Your task to perform on an android device: Empty the shopping cart on amazon.com. Add "sony triple a" to the cart on amazon.com, then select checkout. Image 0: 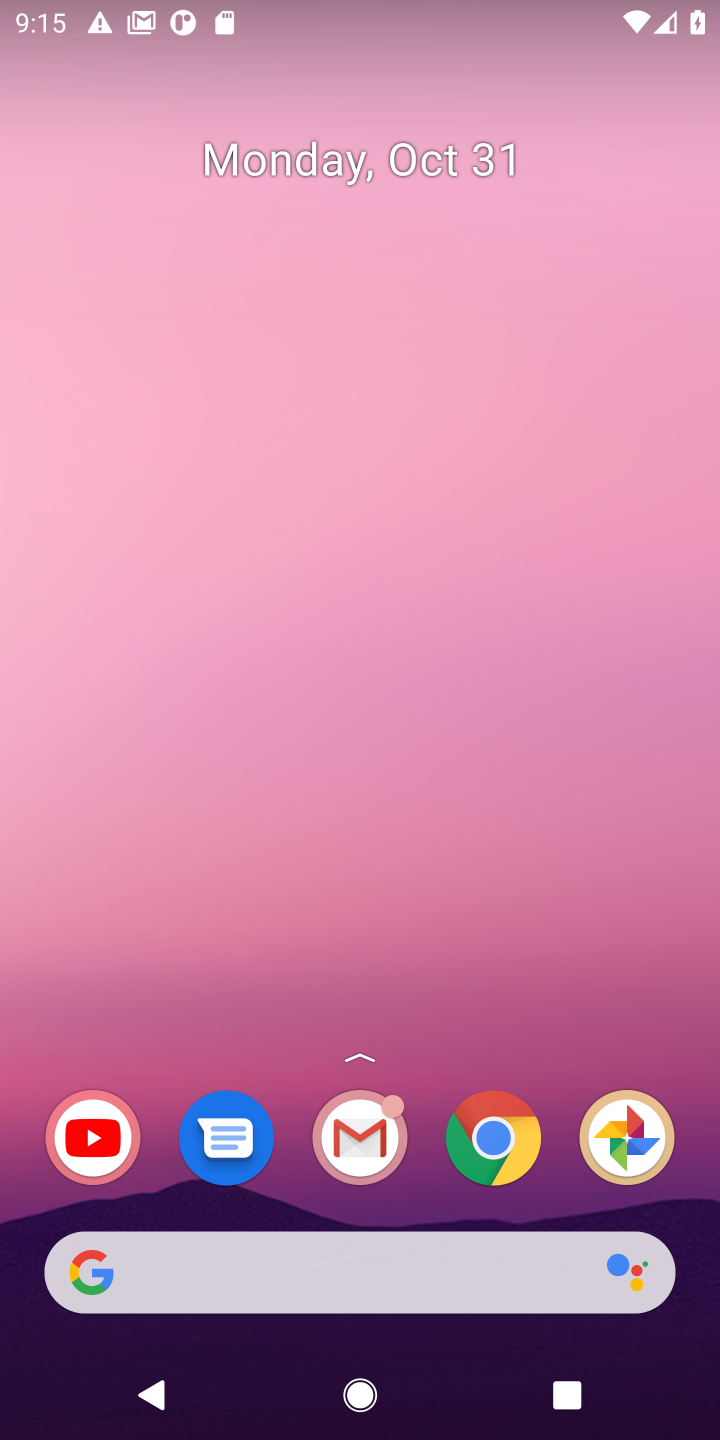
Step 0: drag from (456, 1340) to (365, 149)
Your task to perform on an android device: Empty the shopping cart on amazon.com. Add "sony triple a" to the cart on amazon.com, then select checkout. Image 1: 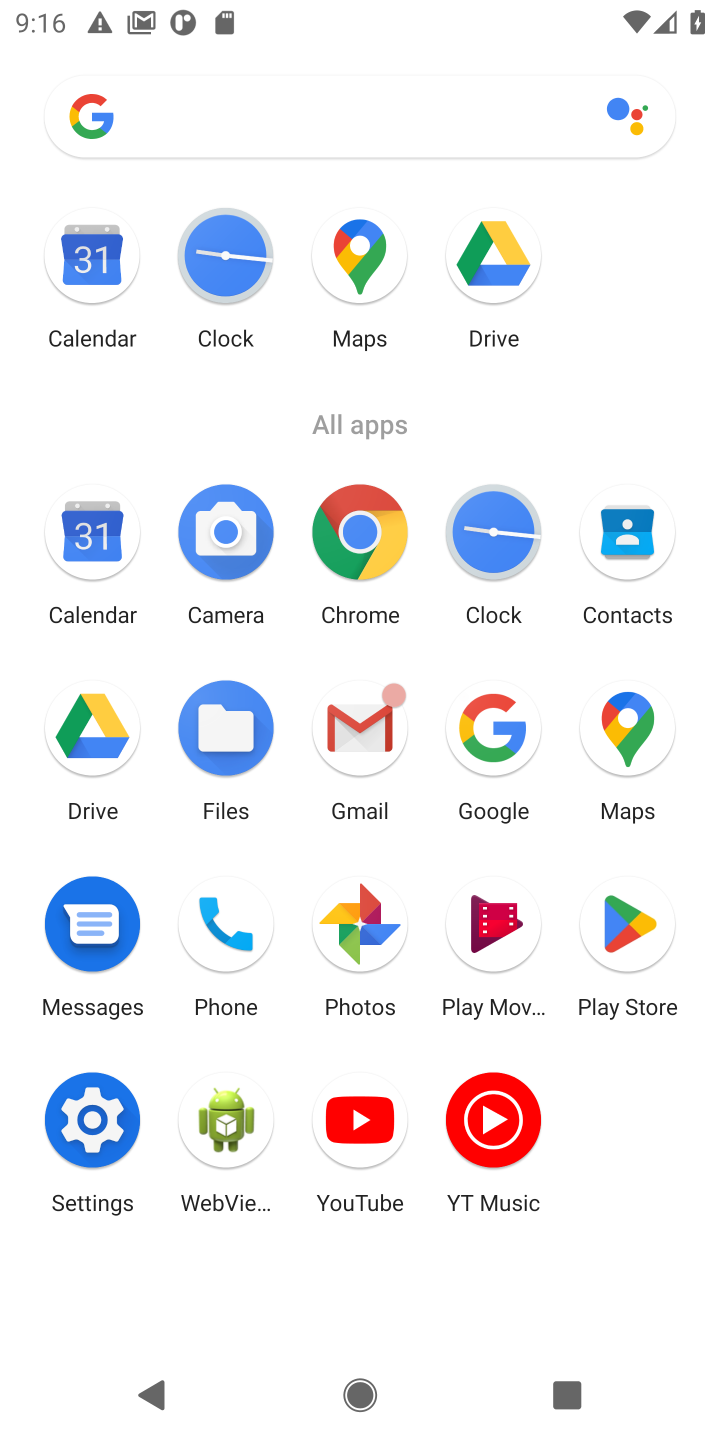
Step 1: click (366, 525)
Your task to perform on an android device: Empty the shopping cart on amazon.com. Add "sony triple a" to the cart on amazon.com, then select checkout. Image 2: 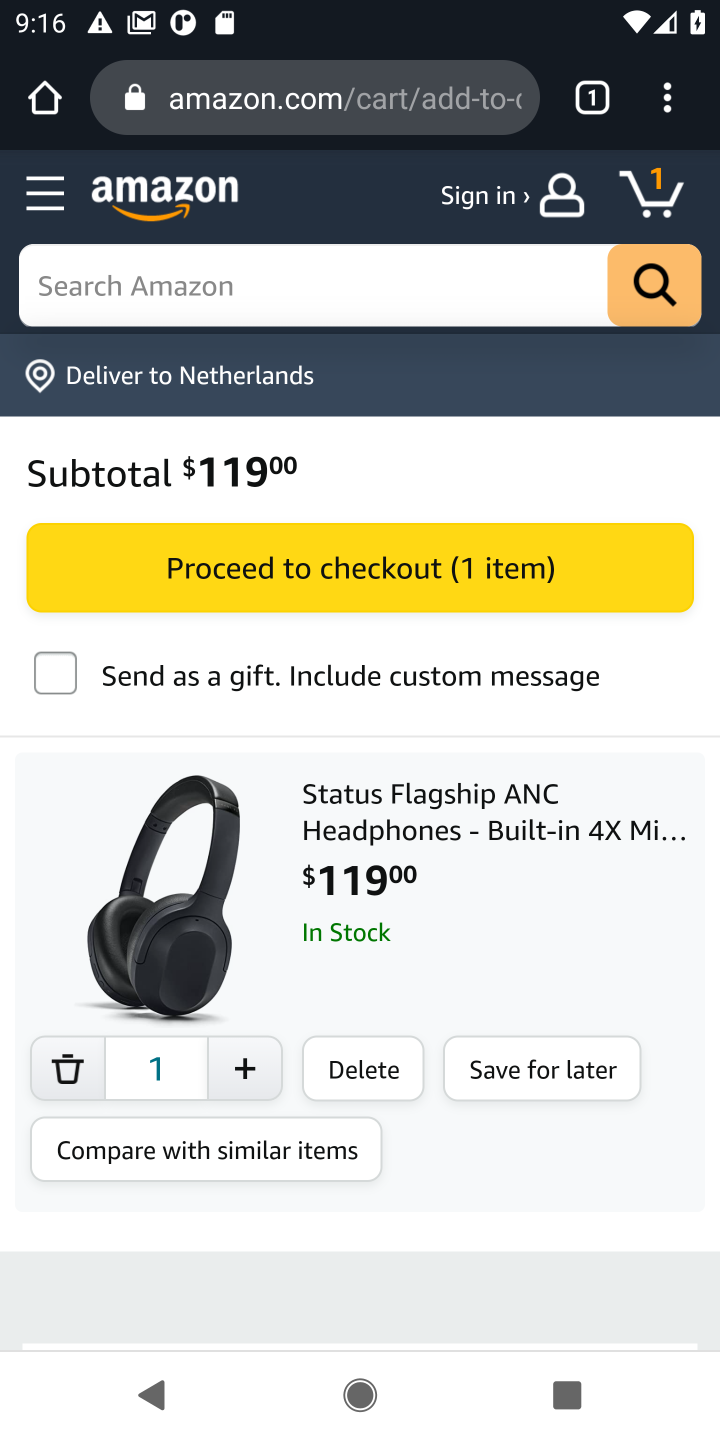
Step 2: click (137, 281)
Your task to perform on an android device: Empty the shopping cart on amazon.com. Add "sony triple a" to the cart on amazon.com, then select checkout. Image 3: 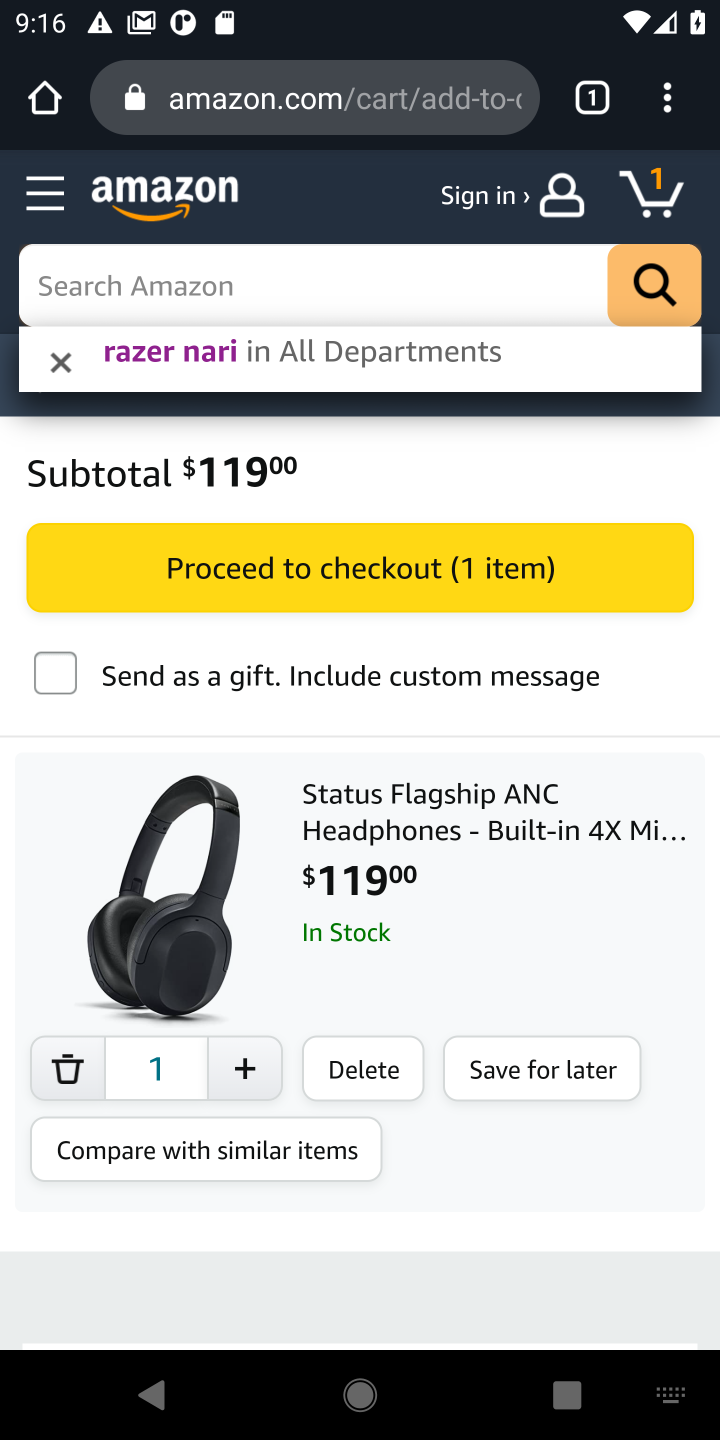
Step 3: click (642, 184)
Your task to perform on an android device: Empty the shopping cart on amazon.com. Add "sony triple a" to the cart on amazon.com, then select checkout. Image 4: 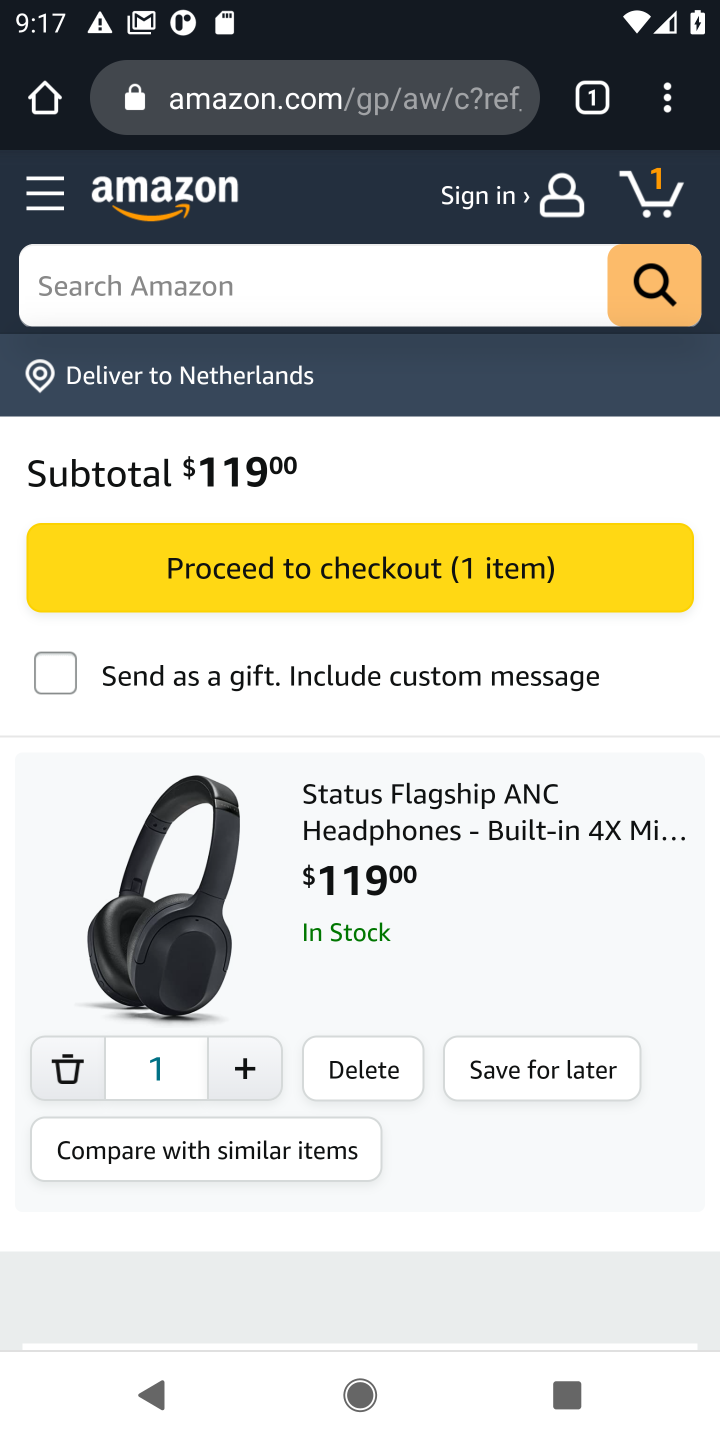
Step 4: click (315, 275)
Your task to perform on an android device: Empty the shopping cart on amazon.com. Add "sony triple a" to the cart on amazon.com, then select checkout. Image 5: 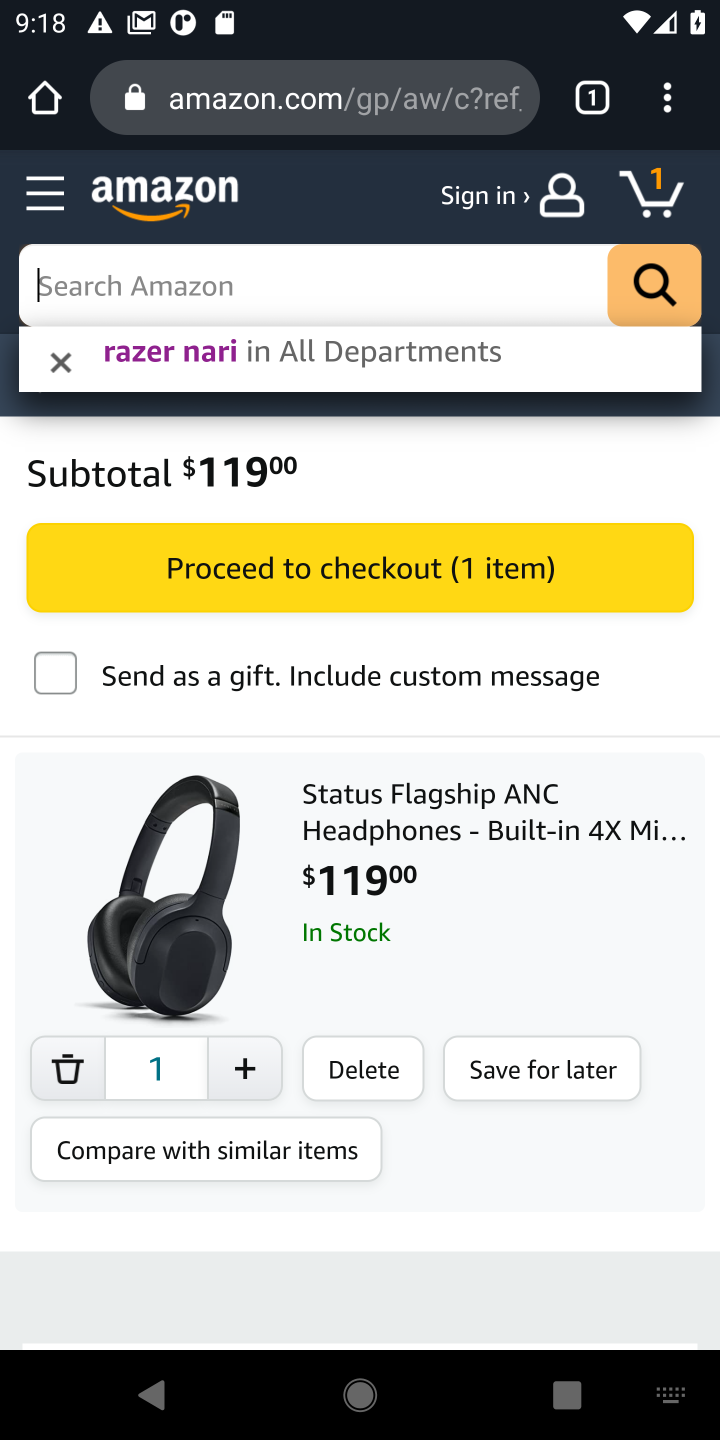
Step 5: type "sony triple a"
Your task to perform on an android device: Empty the shopping cart on amazon.com. Add "sony triple a" to the cart on amazon.com, then select checkout. Image 6: 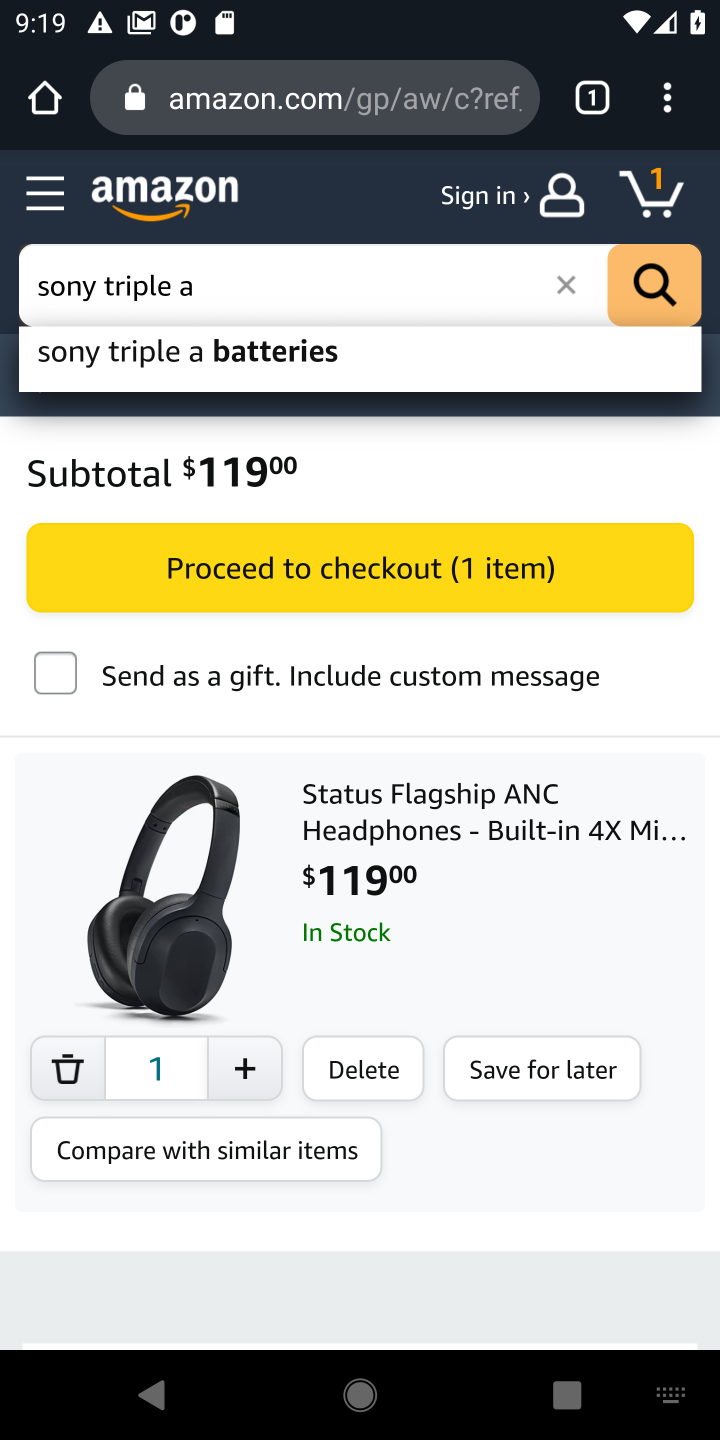
Step 6: click (643, 282)
Your task to perform on an android device: Empty the shopping cart on amazon.com. Add "sony triple a" to the cart on amazon.com, then select checkout. Image 7: 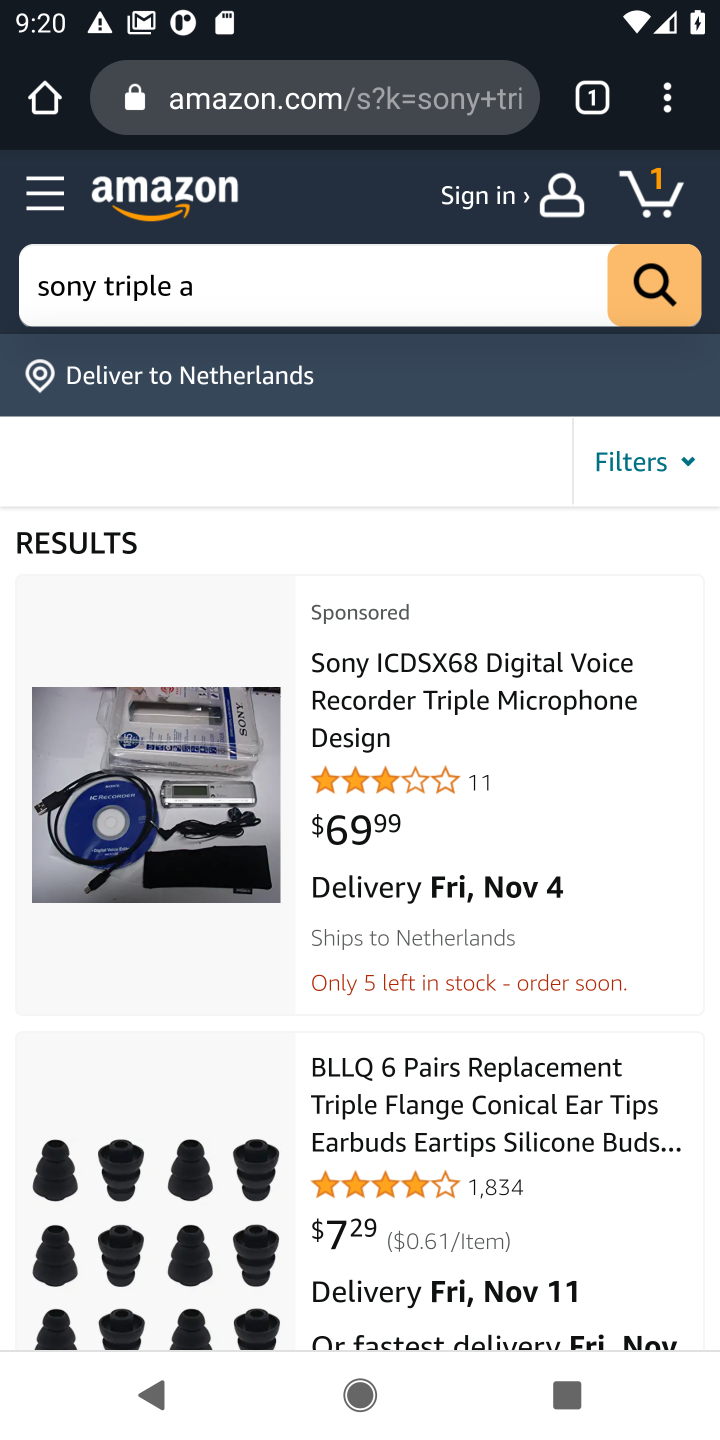
Step 7: click (97, 744)
Your task to perform on an android device: Empty the shopping cart on amazon.com. Add "sony triple a" to the cart on amazon.com, then select checkout. Image 8: 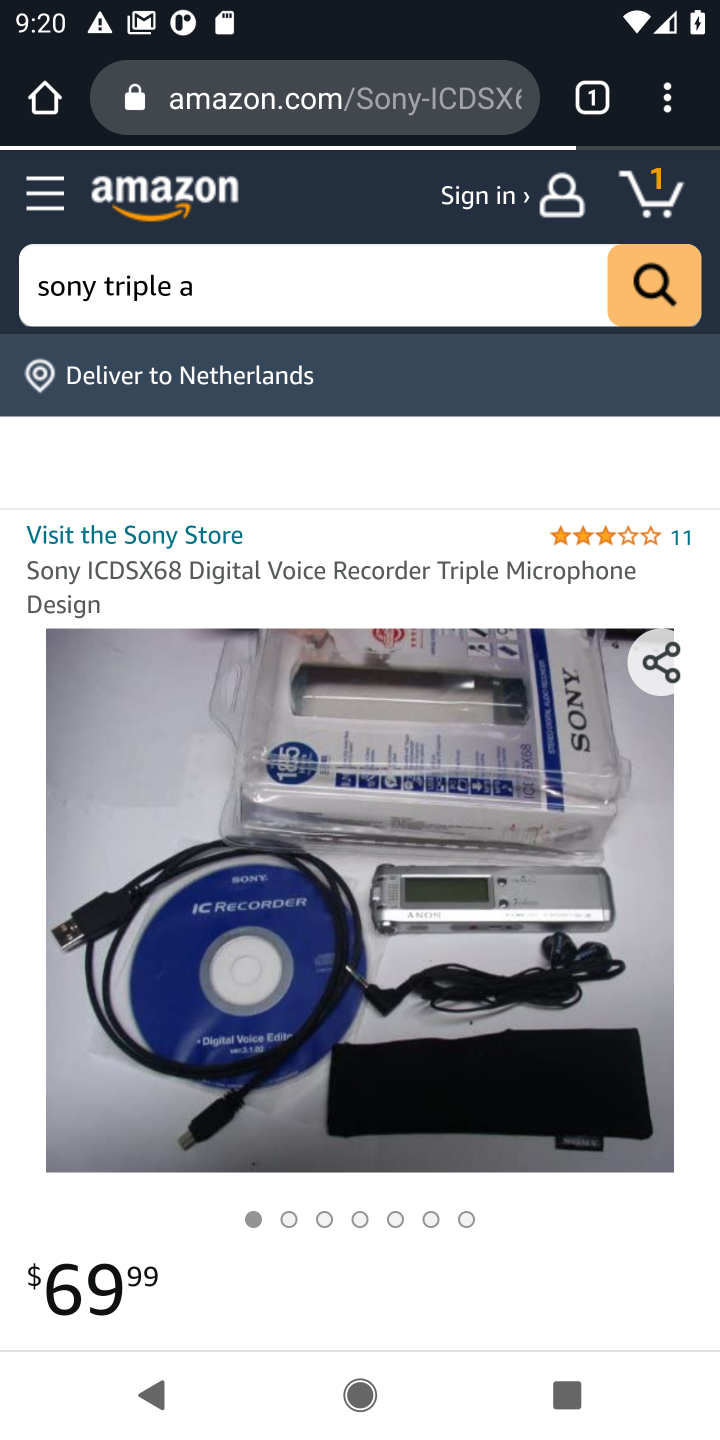
Step 8: drag from (292, 608) to (310, 338)
Your task to perform on an android device: Empty the shopping cart on amazon.com. Add "sony triple a" to the cart on amazon.com, then select checkout. Image 9: 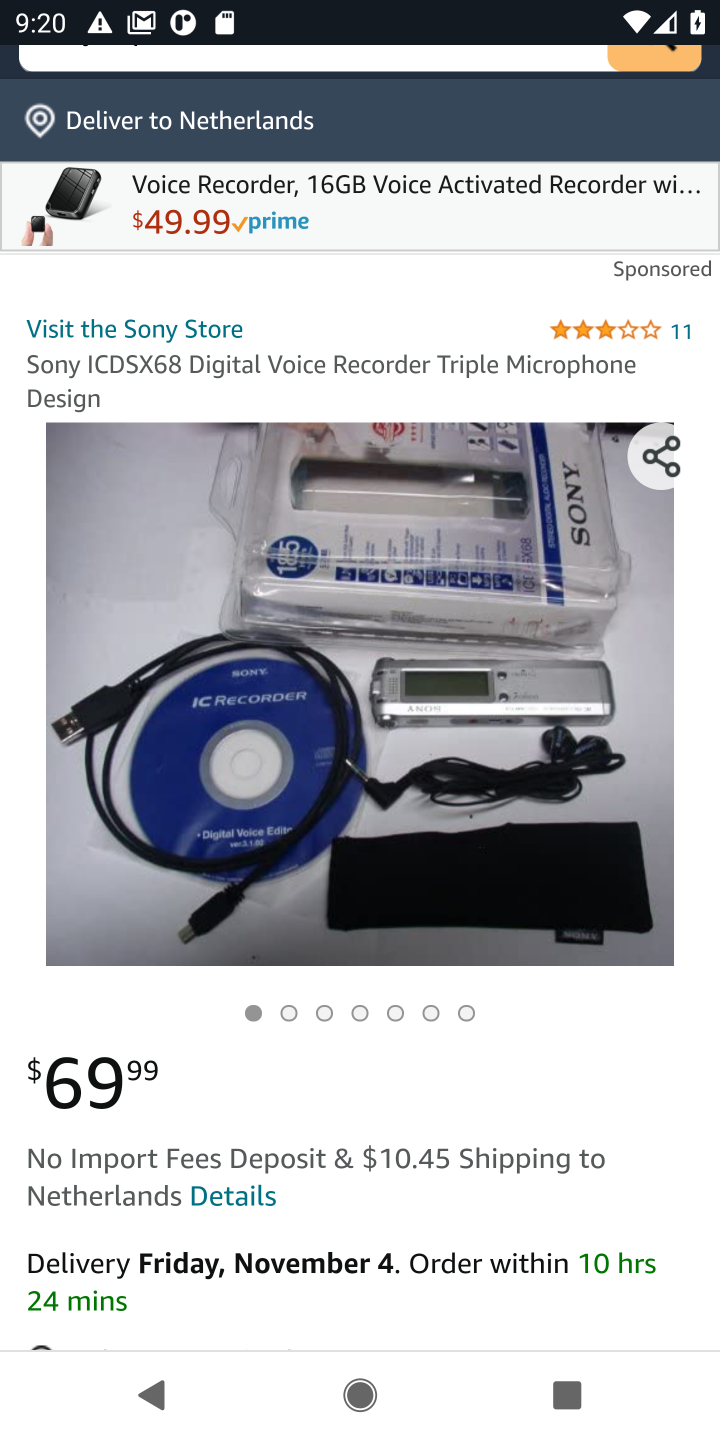
Step 9: drag from (416, 1088) to (399, 427)
Your task to perform on an android device: Empty the shopping cart on amazon.com. Add "sony triple a" to the cart on amazon.com, then select checkout. Image 10: 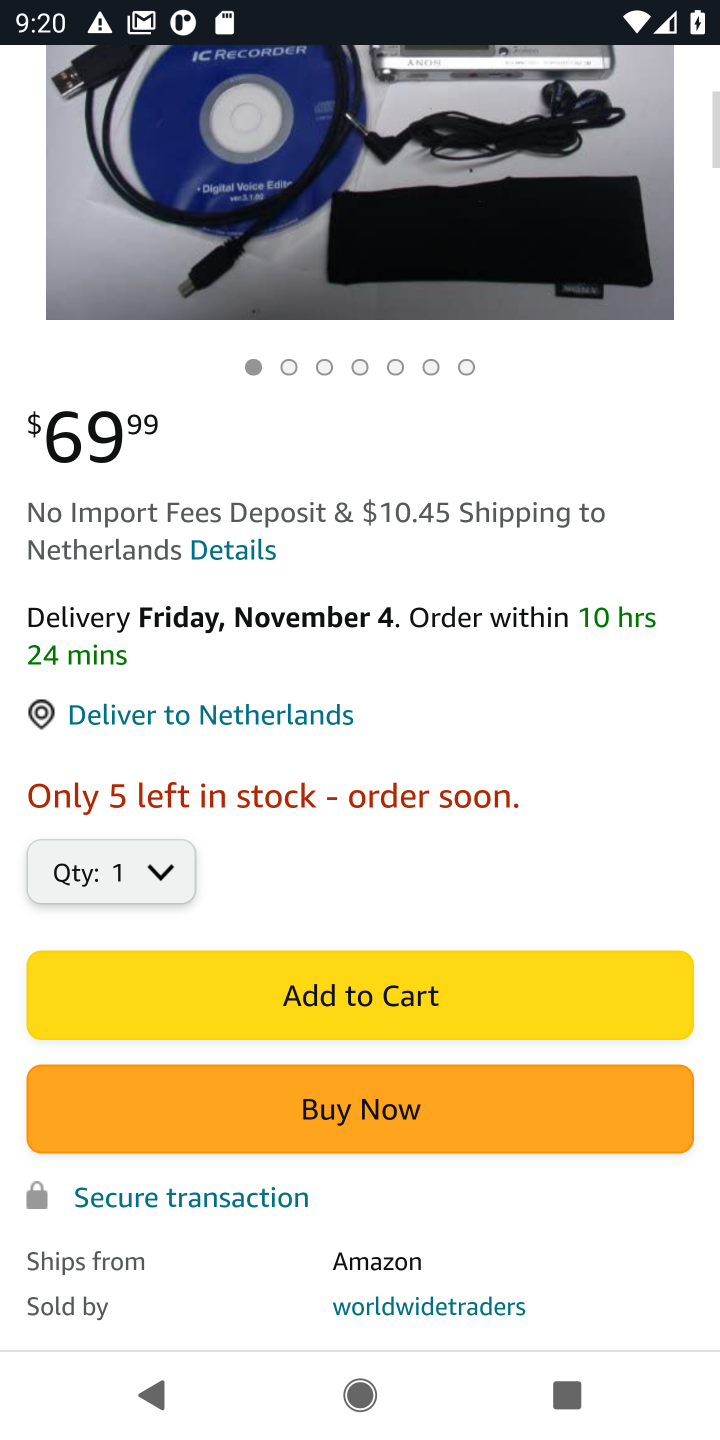
Step 10: drag from (384, 1208) to (445, 519)
Your task to perform on an android device: Empty the shopping cart on amazon.com. Add "sony triple a" to the cart on amazon.com, then select checkout. Image 11: 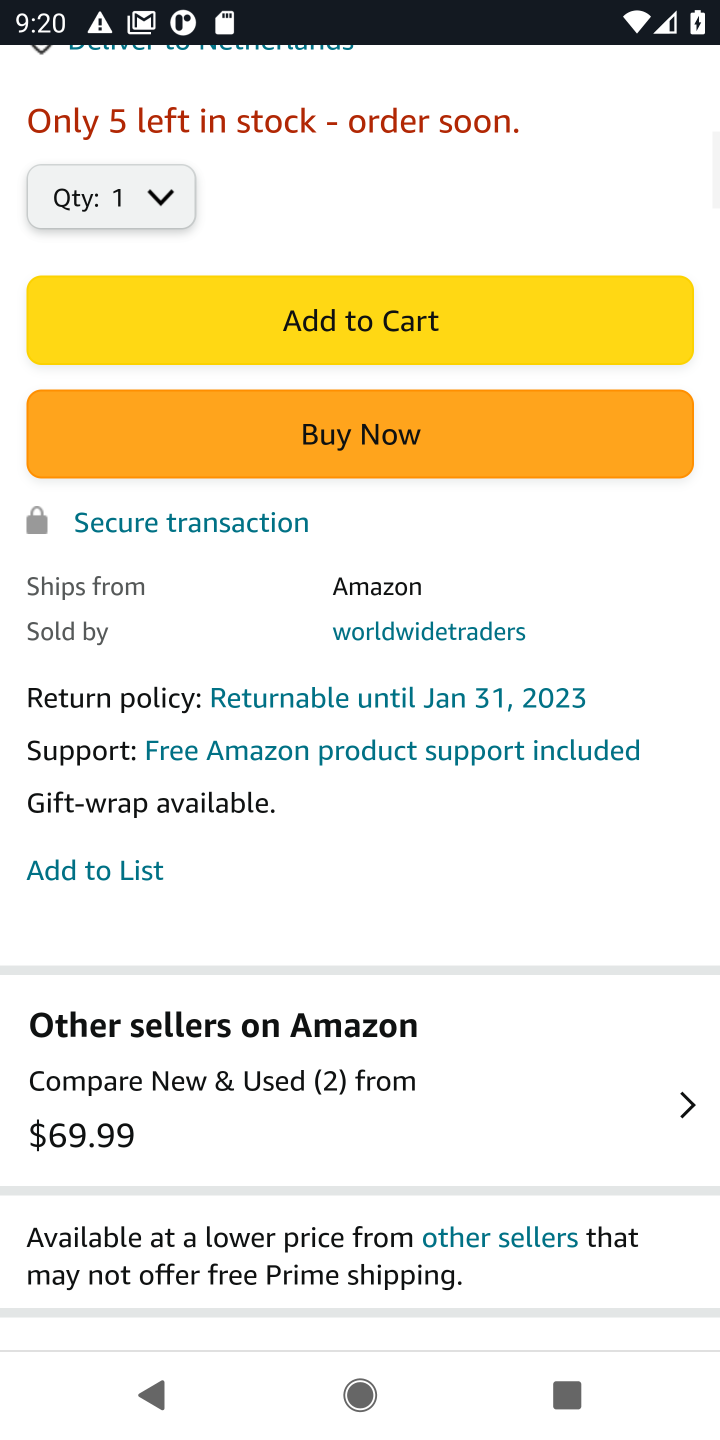
Step 11: click (405, 288)
Your task to perform on an android device: Empty the shopping cart on amazon.com. Add "sony triple a" to the cart on amazon.com, then select checkout. Image 12: 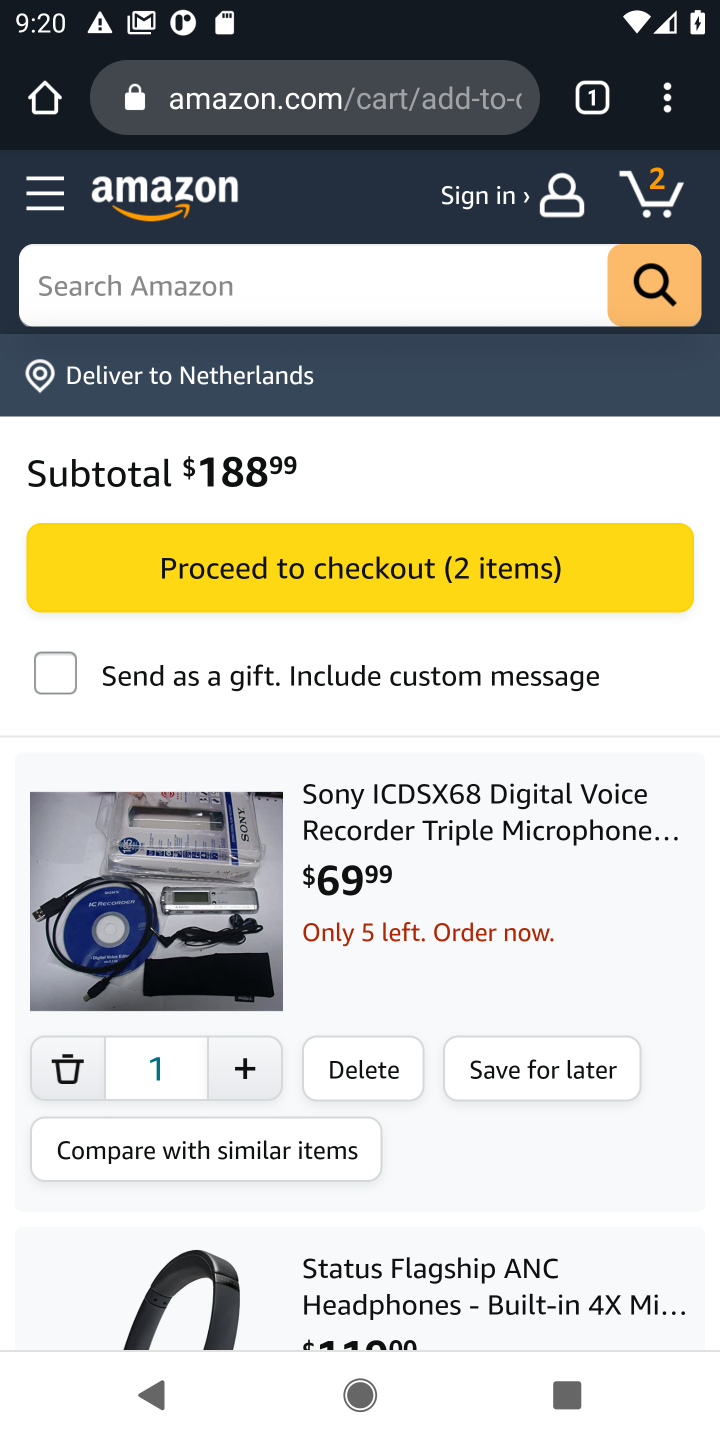
Step 12: task complete